Your task to perform on an android device: delete a single message in the gmail app Image 0: 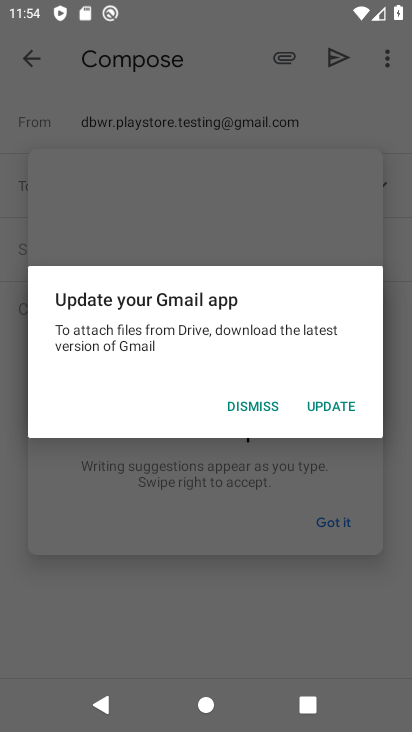
Step 0: press home button
Your task to perform on an android device: delete a single message in the gmail app Image 1: 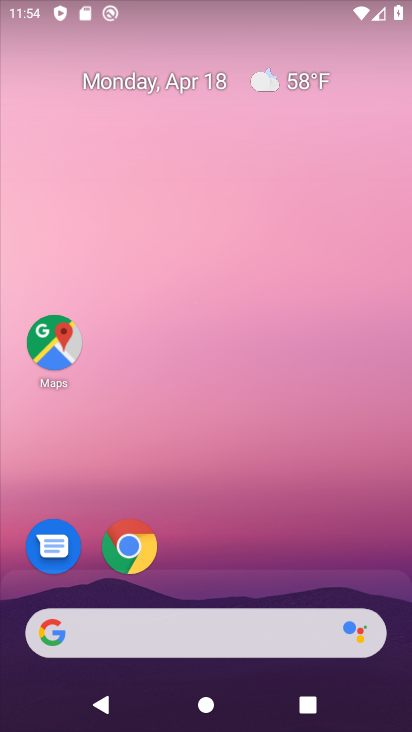
Step 1: drag from (233, 472) to (277, 199)
Your task to perform on an android device: delete a single message in the gmail app Image 2: 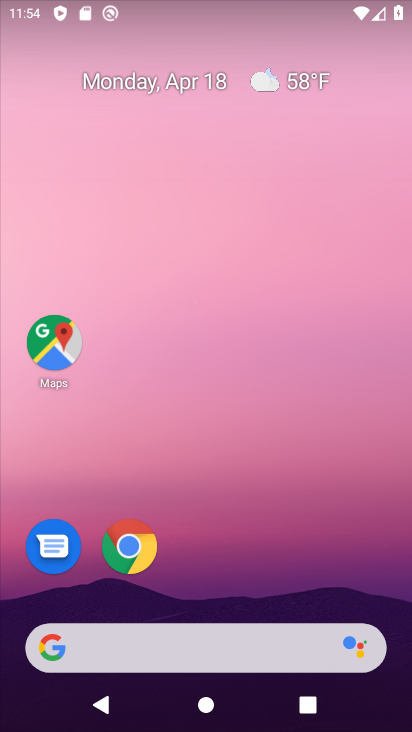
Step 2: drag from (207, 578) to (257, 30)
Your task to perform on an android device: delete a single message in the gmail app Image 3: 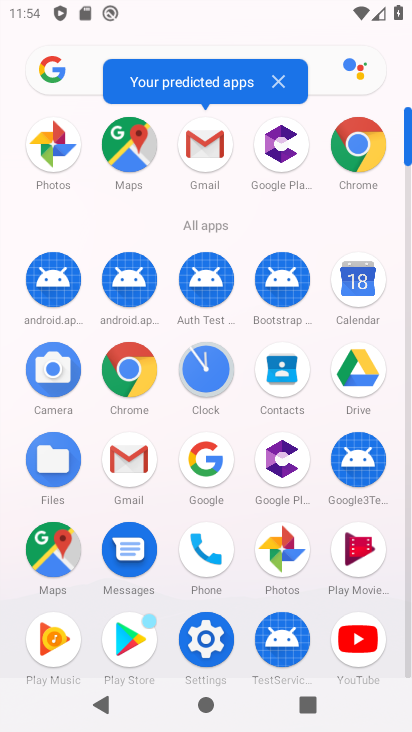
Step 3: click (214, 142)
Your task to perform on an android device: delete a single message in the gmail app Image 4: 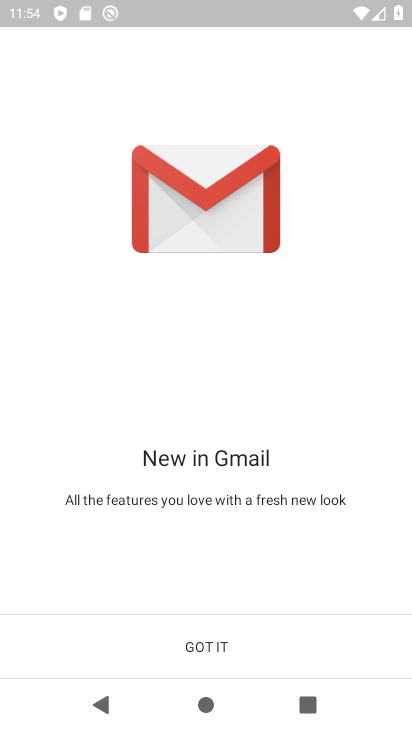
Step 4: click (200, 636)
Your task to perform on an android device: delete a single message in the gmail app Image 5: 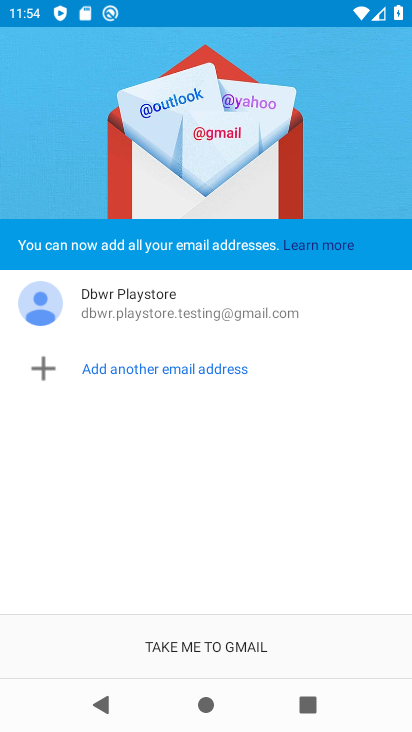
Step 5: click (200, 636)
Your task to perform on an android device: delete a single message in the gmail app Image 6: 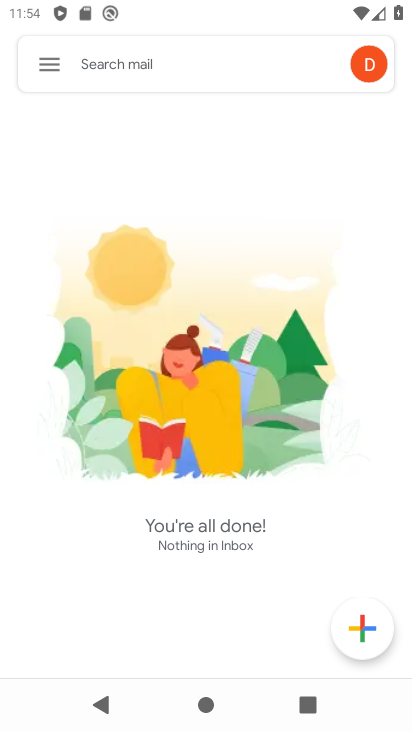
Step 6: task complete